Your task to perform on an android device: check storage Image 0: 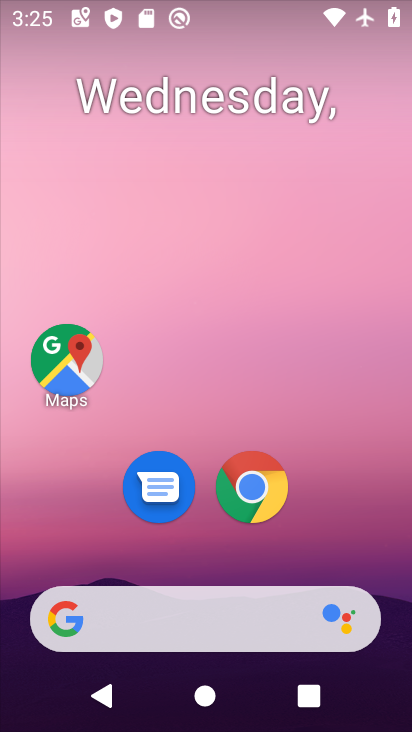
Step 0: drag from (332, 544) to (244, 11)
Your task to perform on an android device: check storage Image 1: 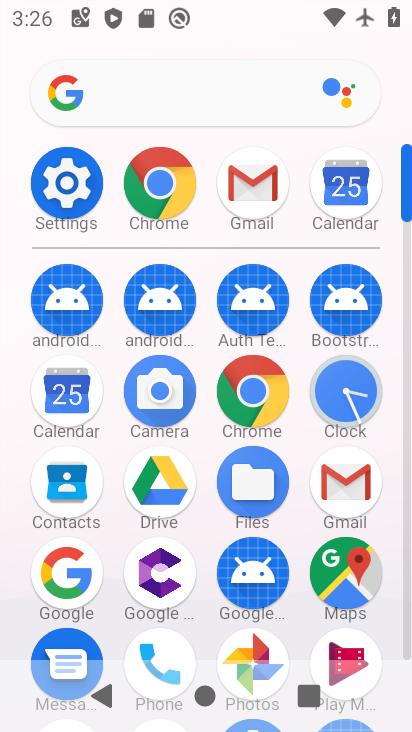
Step 1: click (75, 184)
Your task to perform on an android device: check storage Image 2: 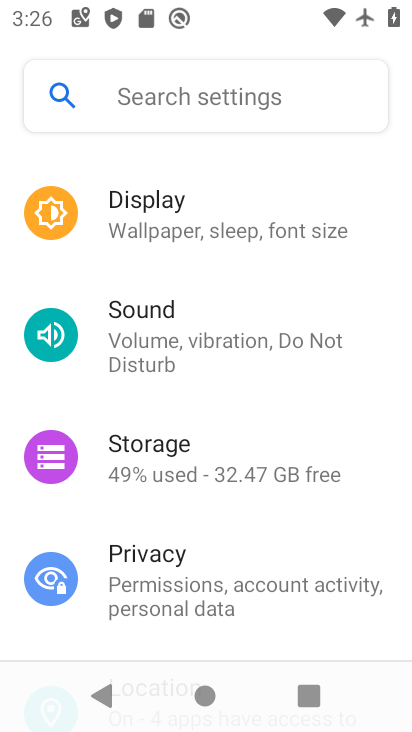
Step 2: click (163, 481)
Your task to perform on an android device: check storage Image 3: 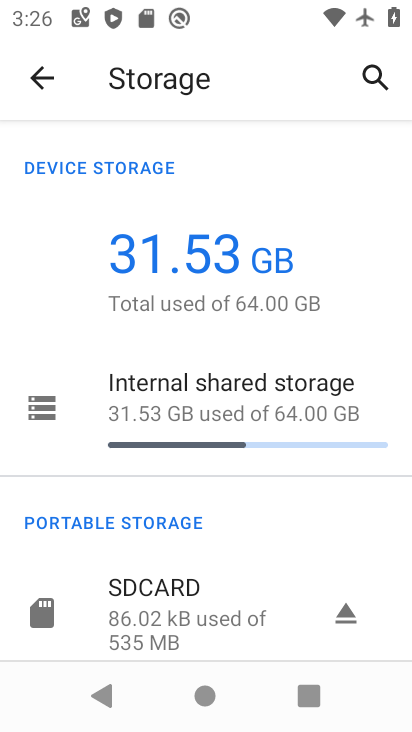
Step 3: task complete